Your task to perform on an android device: set default search engine in the chrome app Image 0: 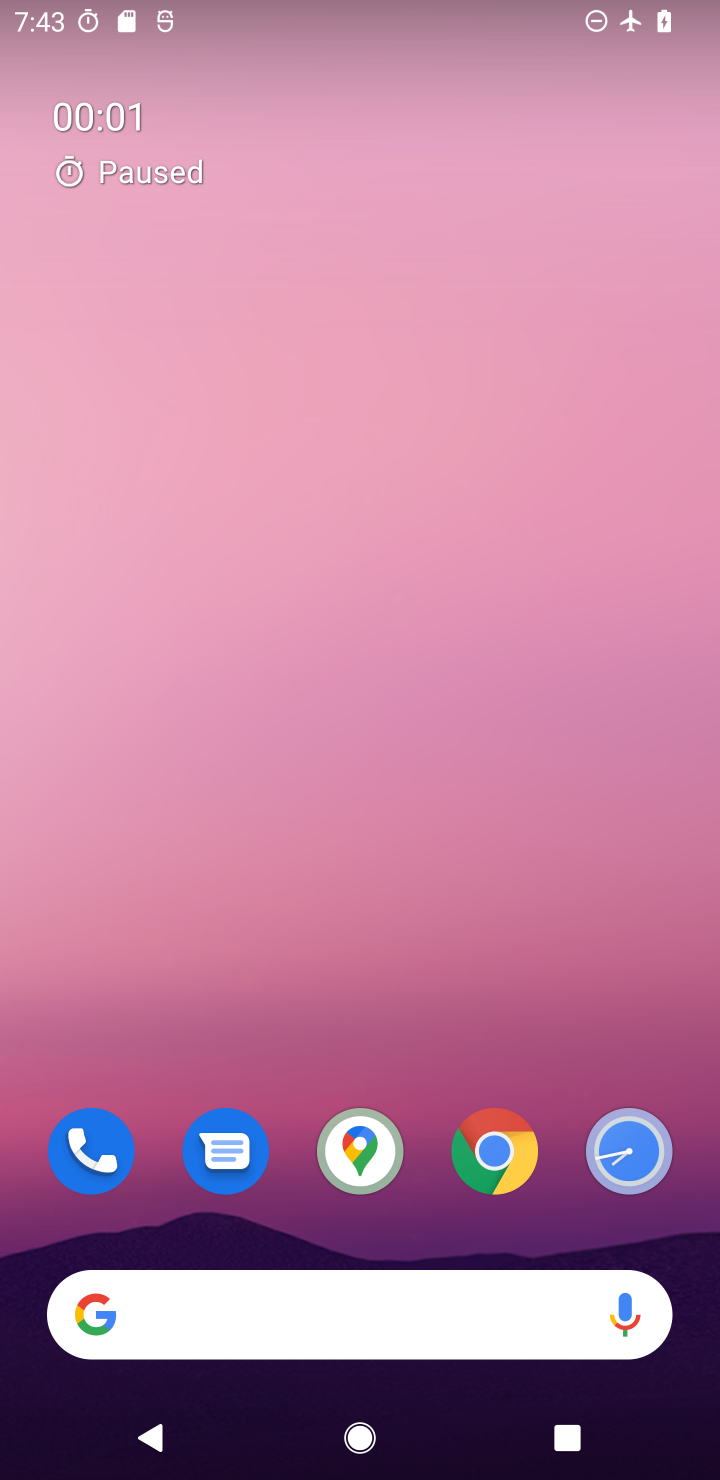
Step 0: drag from (408, 1018) to (377, 176)
Your task to perform on an android device: set default search engine in the chrome app Image 1: 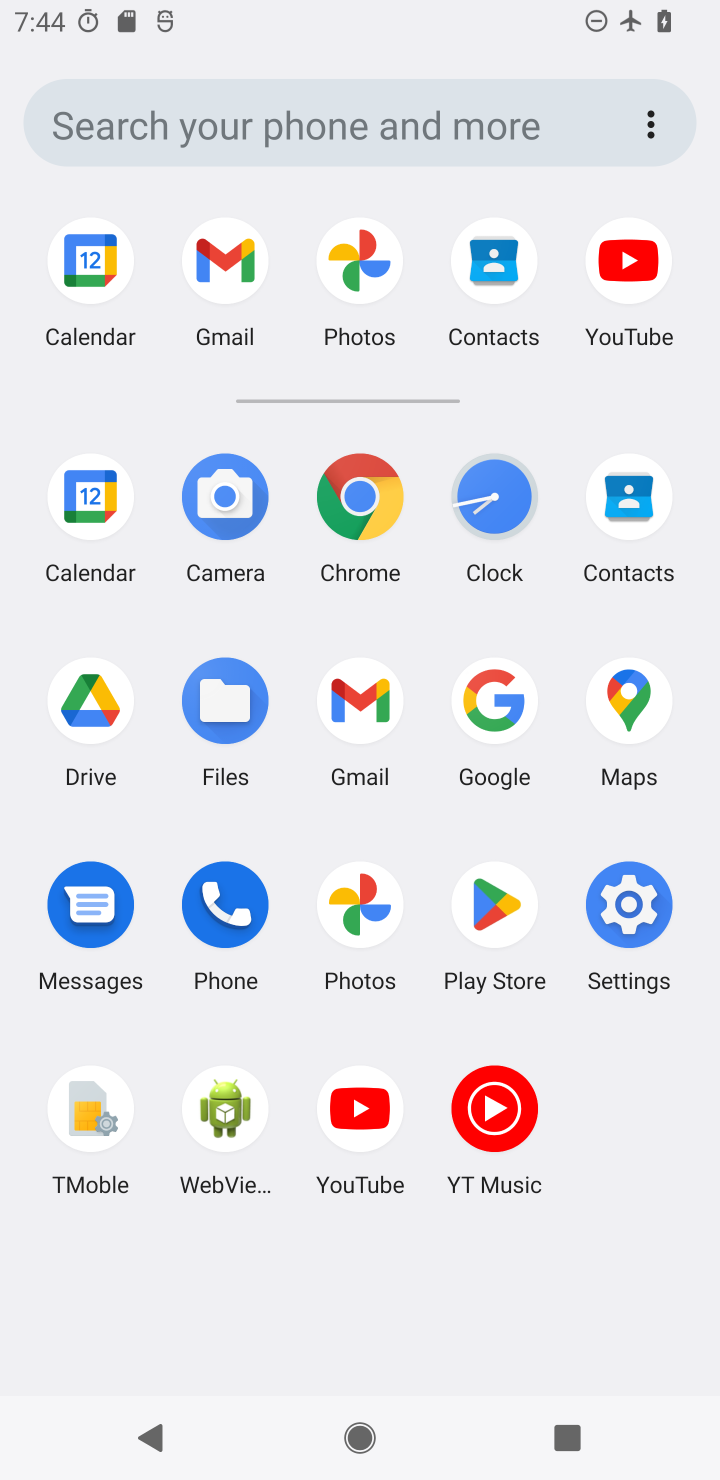
Step 1: click (371, 502)
Your task to perform on an android device: set default search engine in the chrome app Image 2: 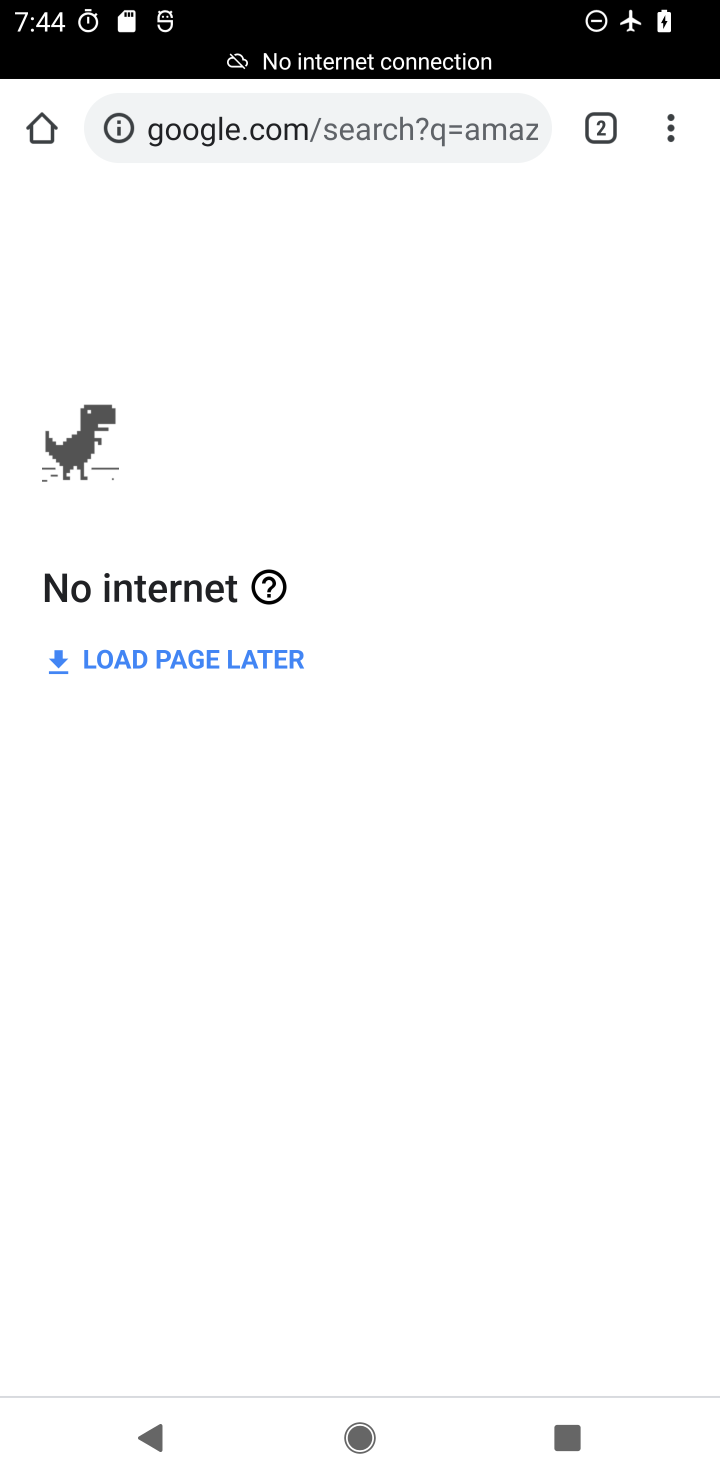
Step 2: drag from (680, 115) to (439, 1247)
Your task to perform on an android device: set default search engine in the chrome app Image 3: 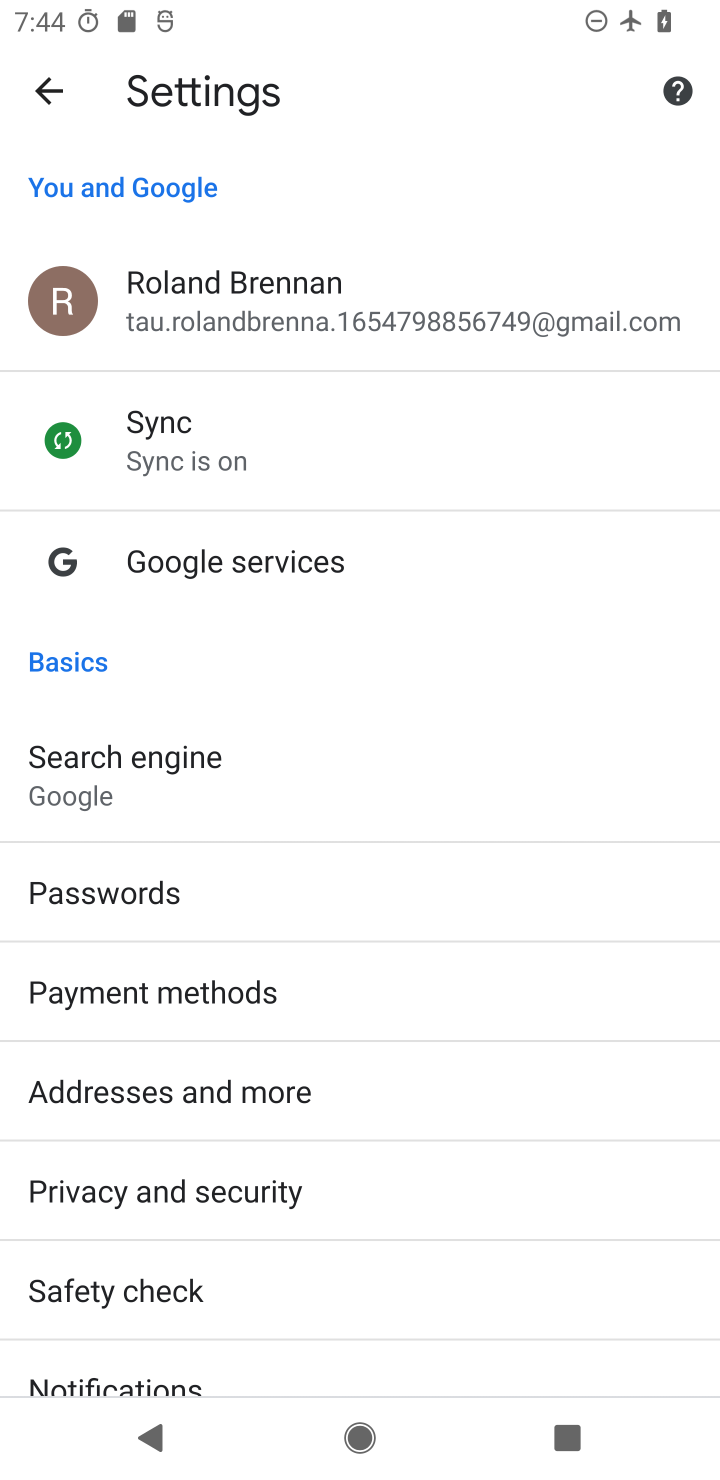
Step 3: click (121, 761)
Your task to perform on an android device: set default search engine in the chrome app Image 4: 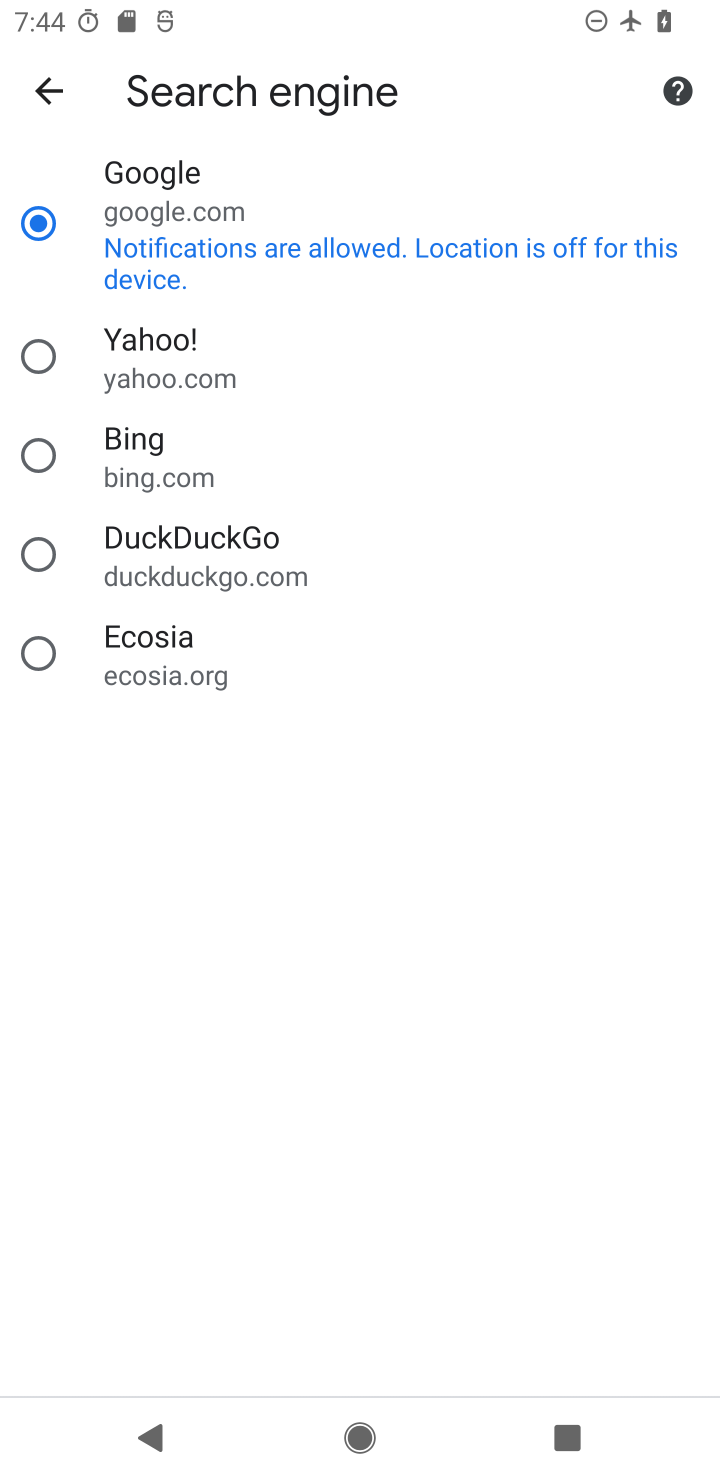
Step 4: task complete